Your task to perform on an android device: toggle pop-ups in chrome Image 0: 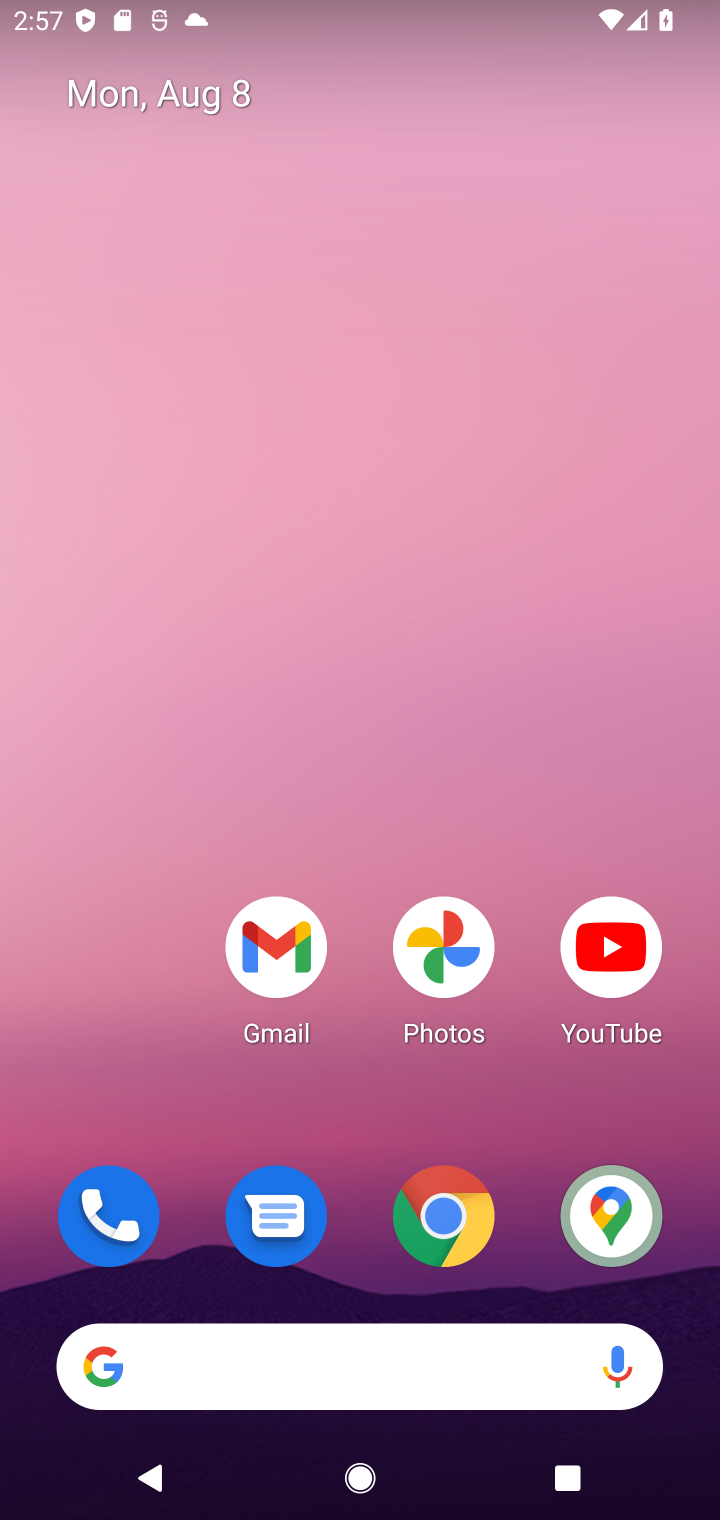
Step 0: click (476, 1252)
Your task to perform on an android device: toggle pop-ups in chrome Image 1: 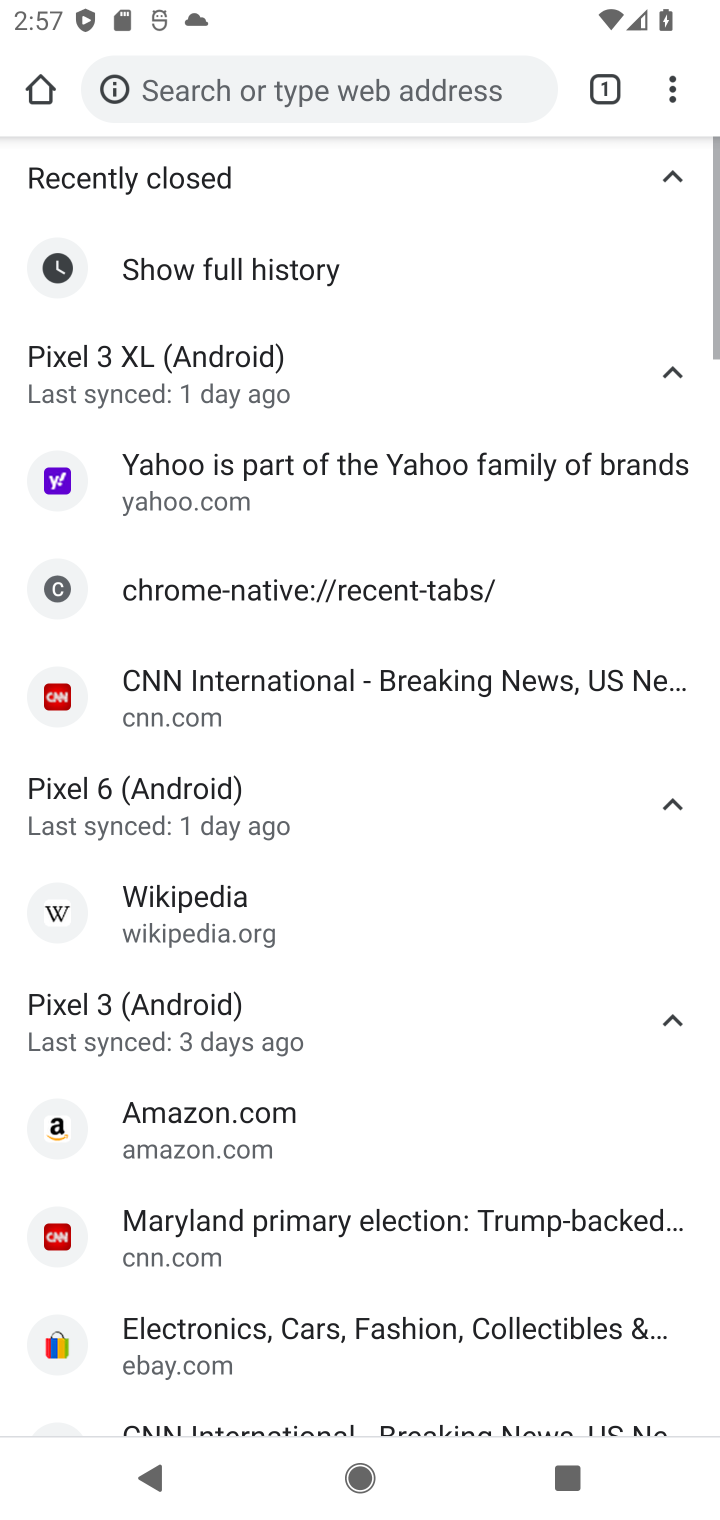
Step 1: click (670, 119)
Your task to perform on an android device: toggle pop-ups in chrome Image 2: 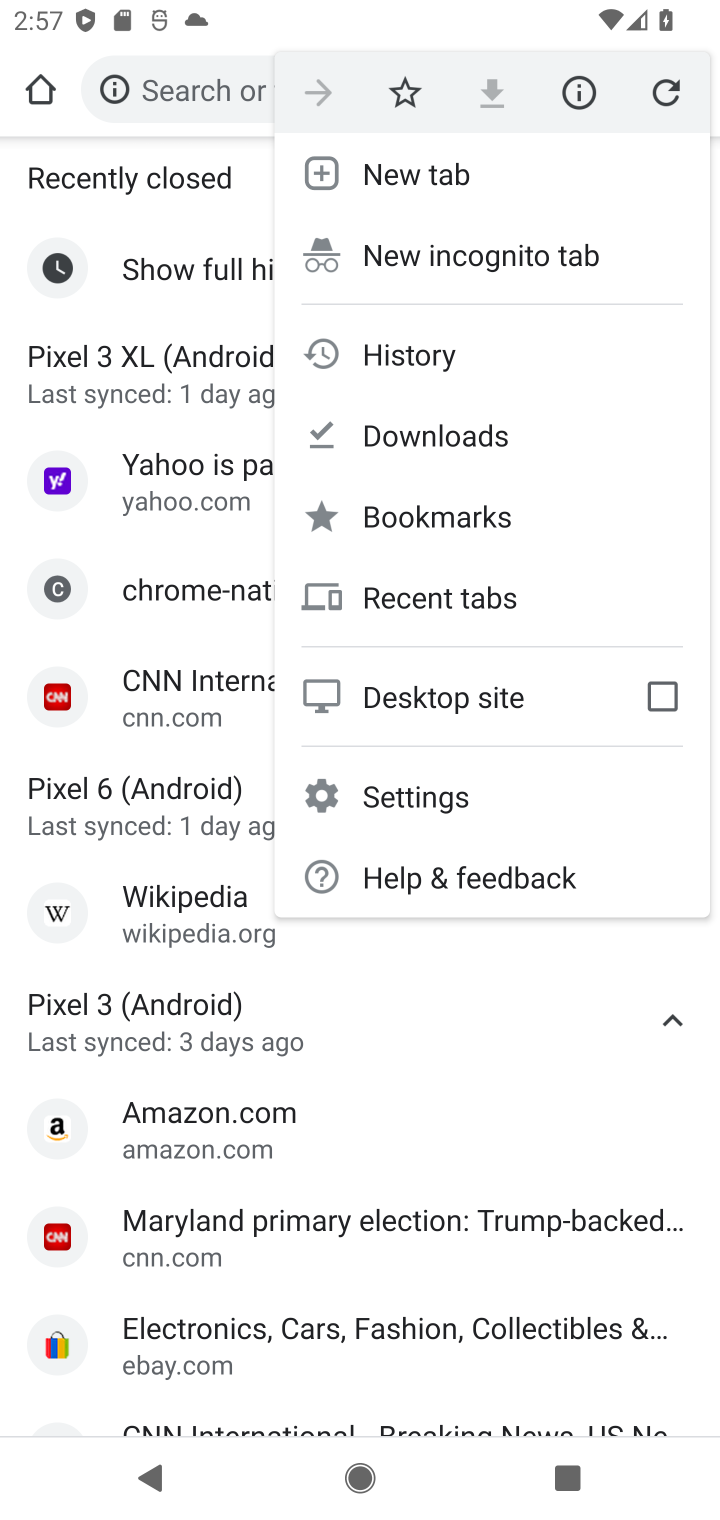
Step 2: click (429, 781)
Your task to perform on an android device: toggle pop-ups in chrome Image 3: 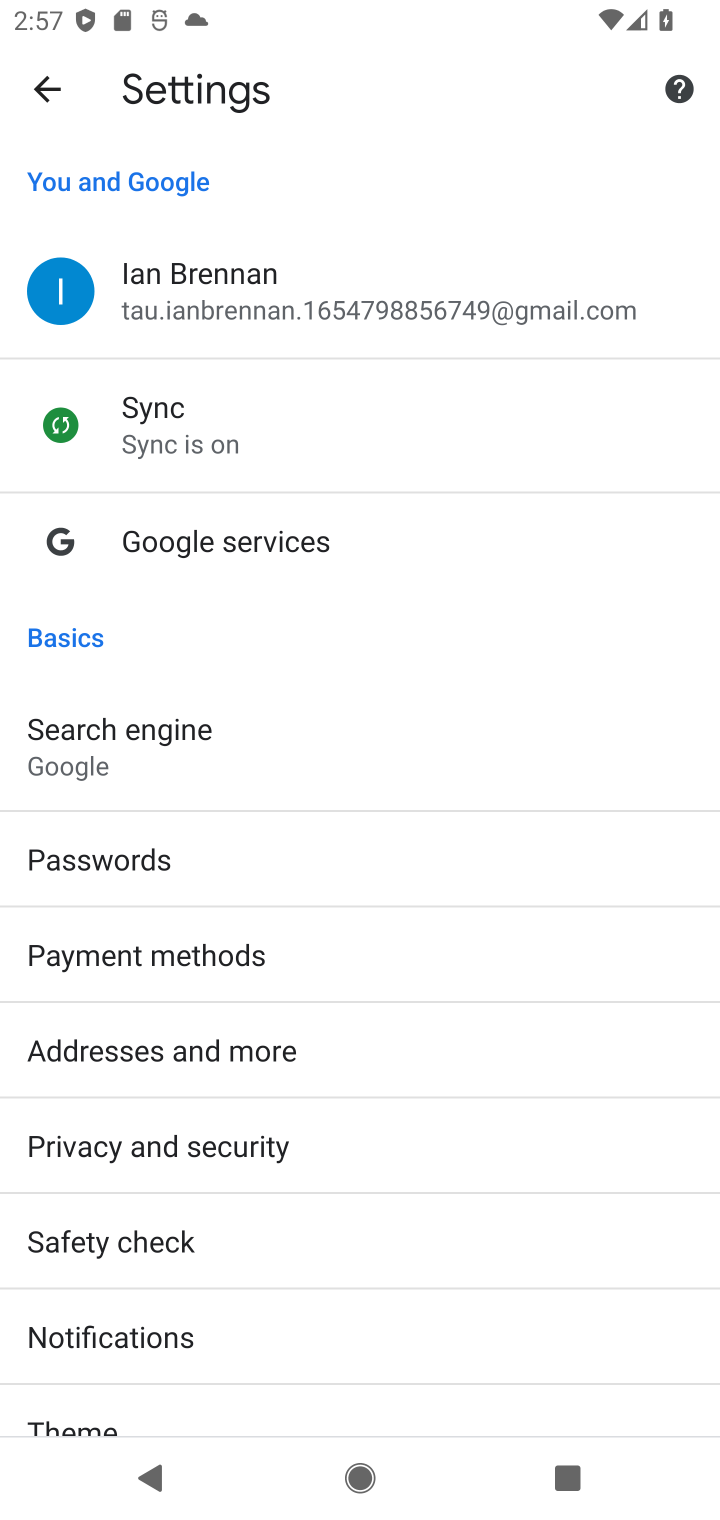
Step 3: drag from (403, 1422) to (407, 571)
Your task to perform on an android device: toggle pop-ups in chrome Image 4: 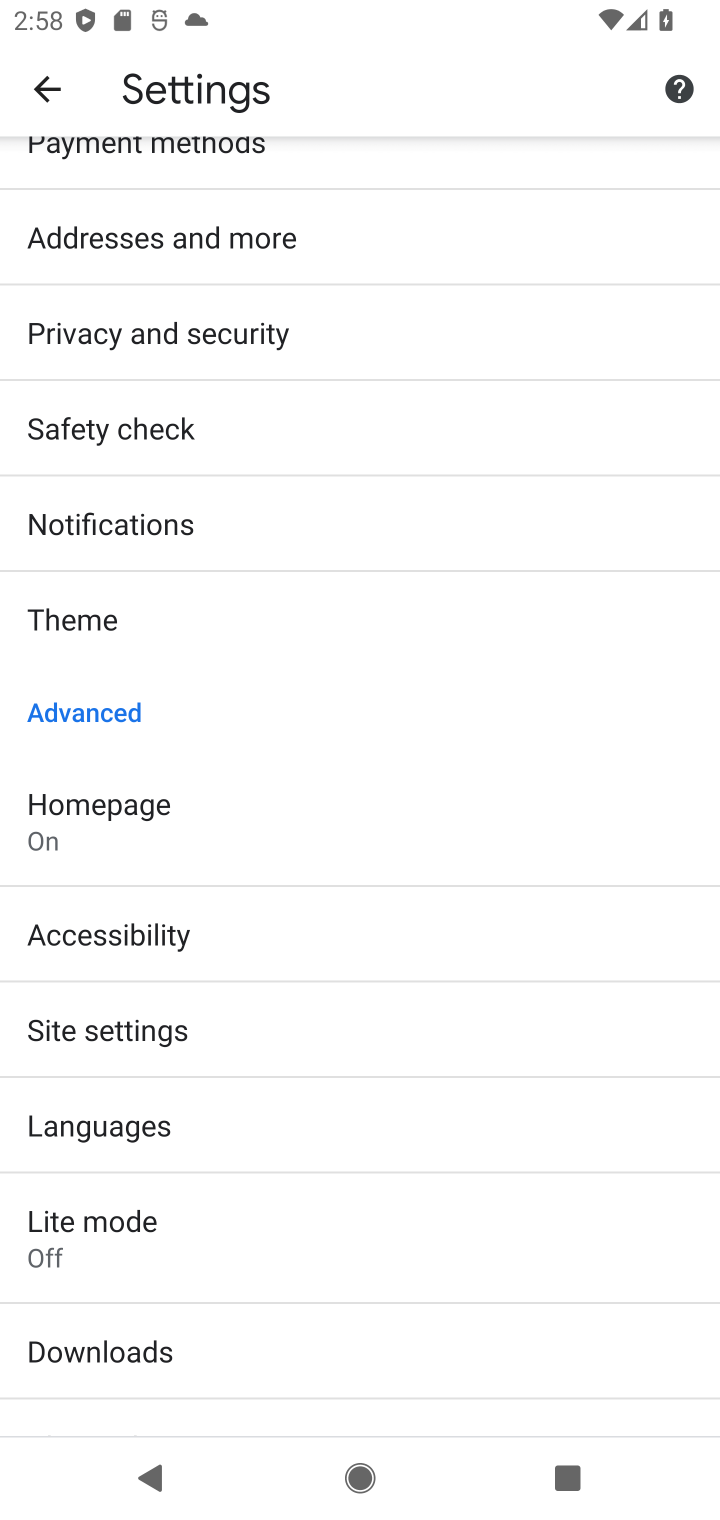
Step 4: click (159, 1024)
Your task to perform on an android device: toggle pop-ups in chrome Image 5: 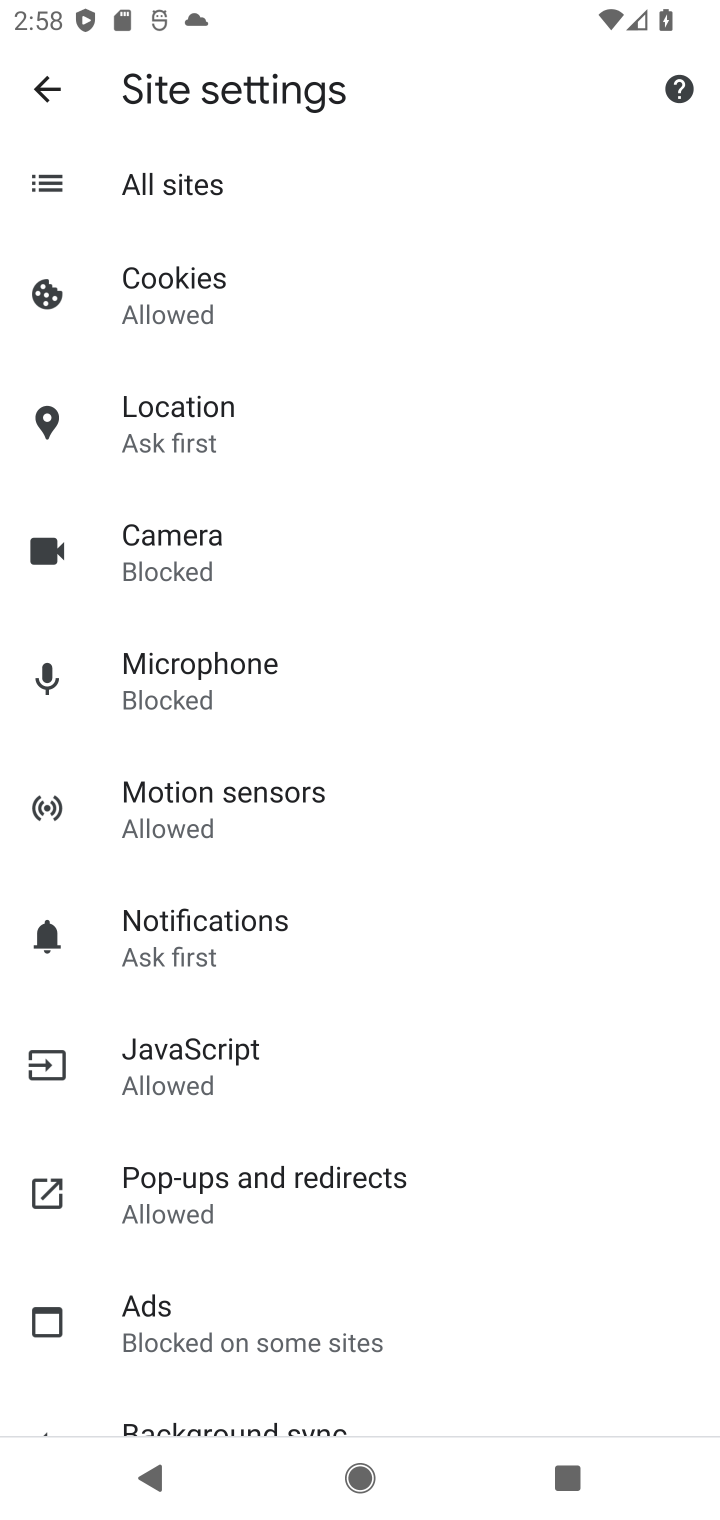
Step 5: click (365, 1198)
Your task to perform on an android device: toggle pop-ups in chrome Image 6: 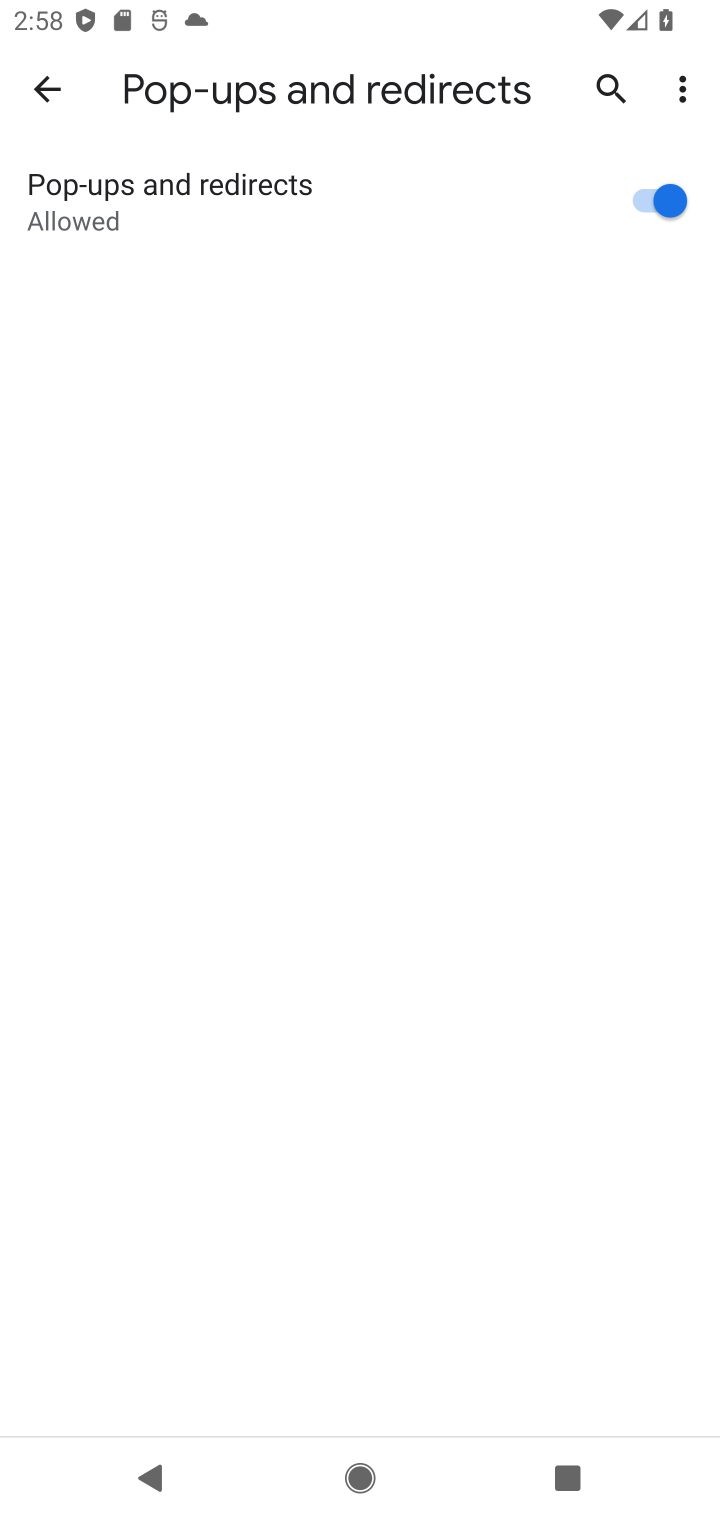
Step 6: click (654, 227)
Your task to perform on an android device: toggle pop-ups in chrome Image 7: 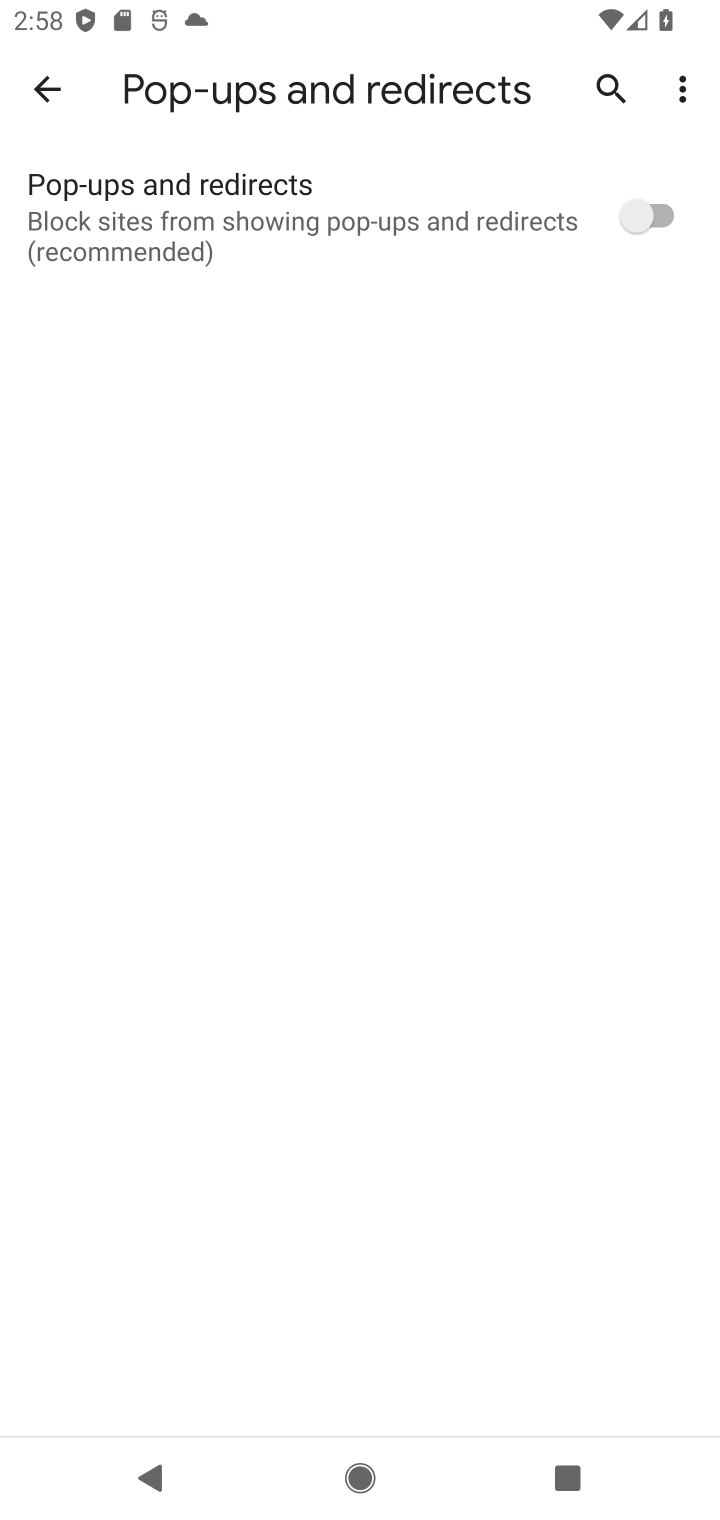
Step 7: click (663, 200)
Your task to perform on an android device: toggle pop-ups in chrome Image 8: 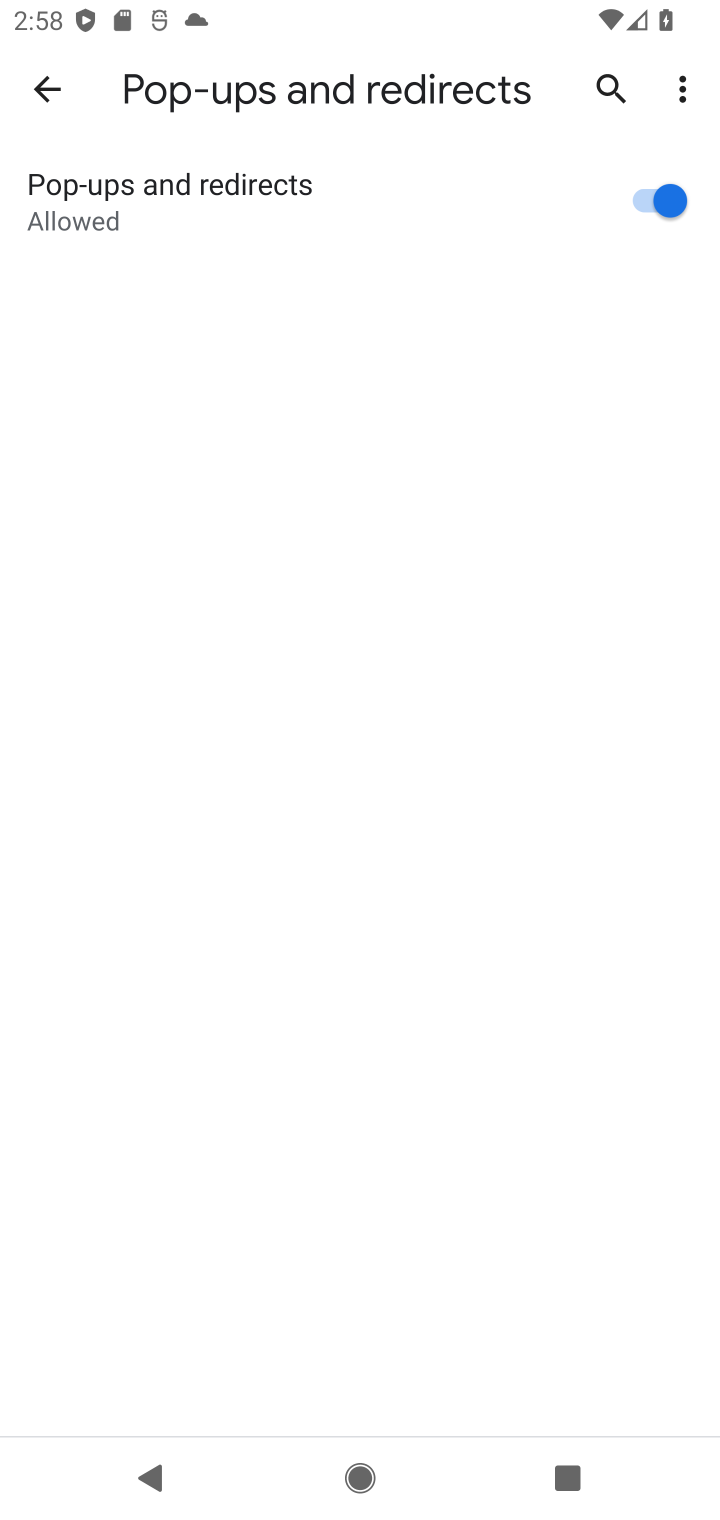
Step 8: task complete